Your task to perform on an android device: toggle notifications settings in the gmail app Image 0: 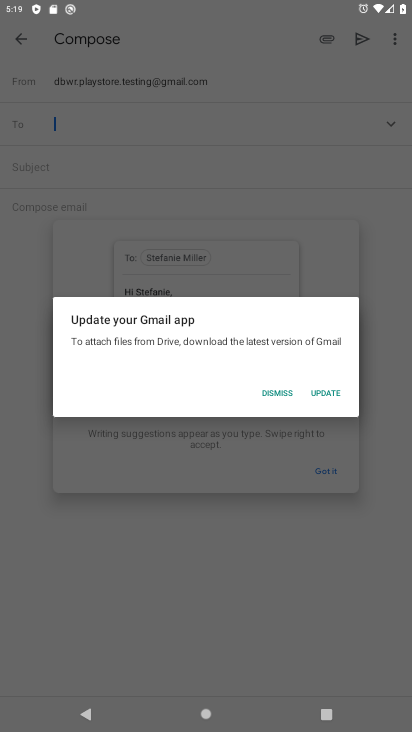
Step 0: press home button
Your task to perform on an android device: toggle notifications settings in the gmail app Image 1: 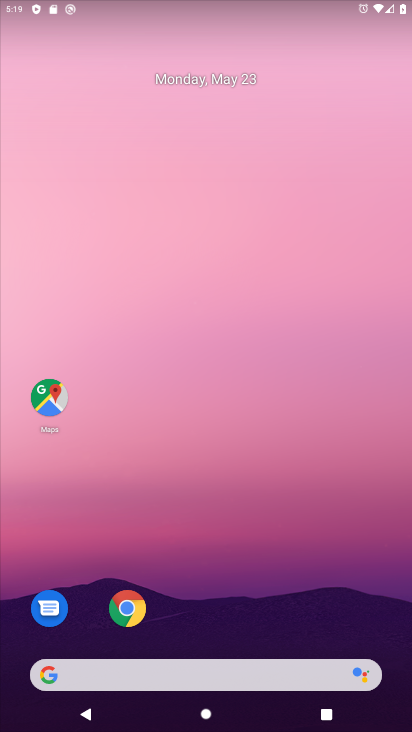
Step 1: drag from (199, 636) to (157, 197)
Your task to perform on an android device: toggle notifications settings in the gmail app Image 2: 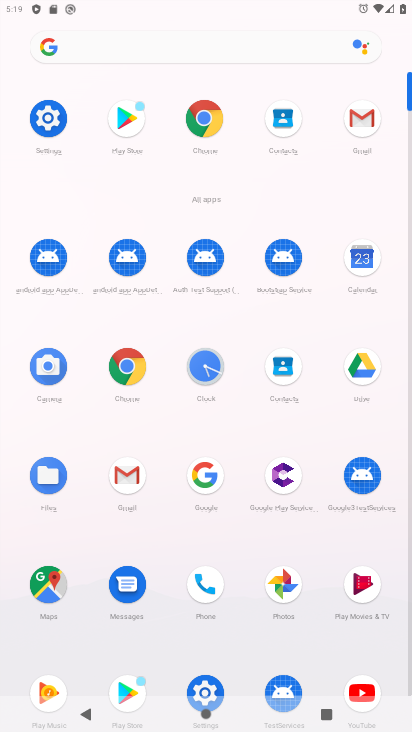
Step 2: click (120, 485)
Your task to perform on an android device: toggle notifications settings in the gmail app Image 3: 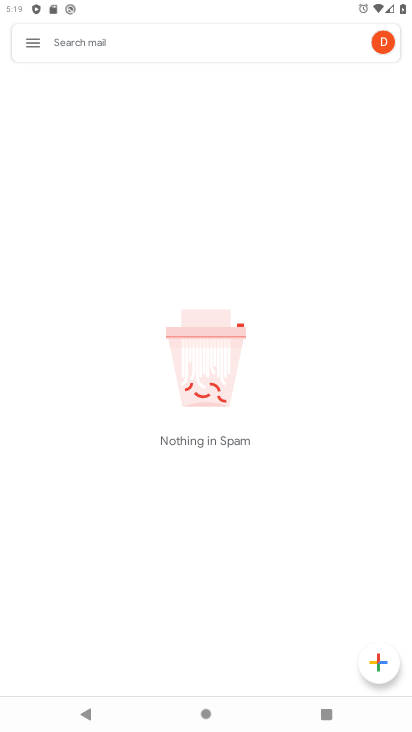
Step 3: click (29, 47)
Your task to perform on an android device: toggle notifications settings in the gmail app Image 4: 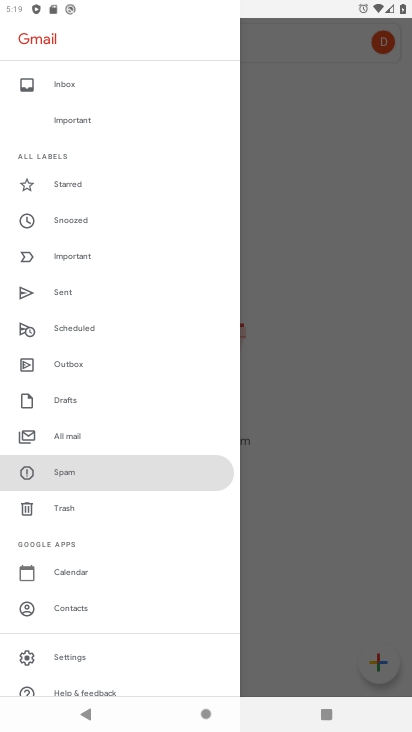
Step 4: drag from (91, 672) to (59, 269)
Your task to perform on an android device: toggle notifications settings in the gmail app Image 5: 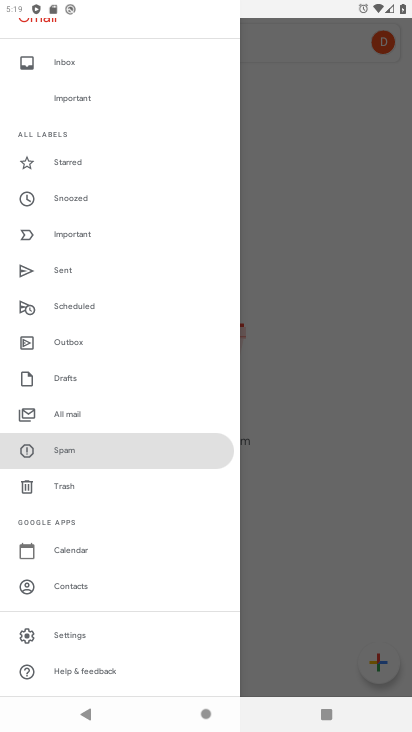
Step 5: click (81, 634)
Your task to perform on an android device: toggle notifications settings in the gmail app Image 6: 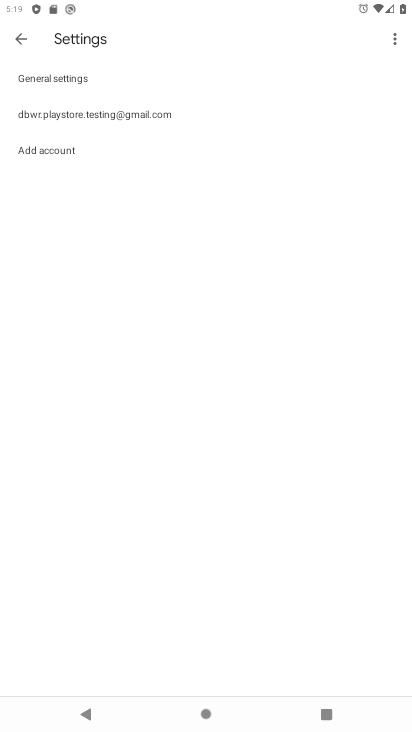
Step 6: click (61, 112)
Your task to perform on an android device: toggle notifications settings in the gmail app Image 7: 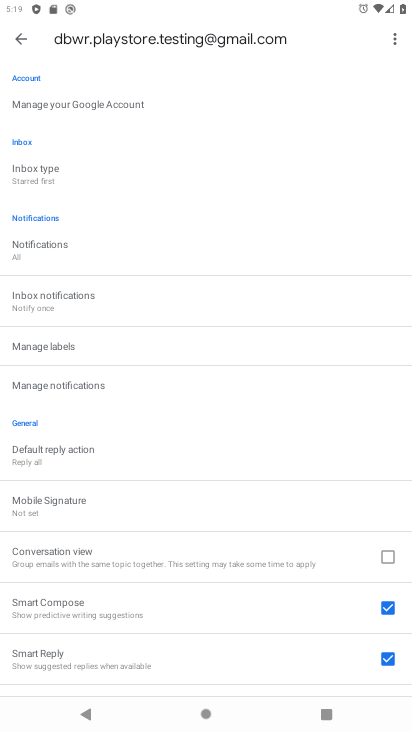
Step 7: click (56, 262)
Your task to perform on an android device: toggle notifications settings in the gmail app Image 8: 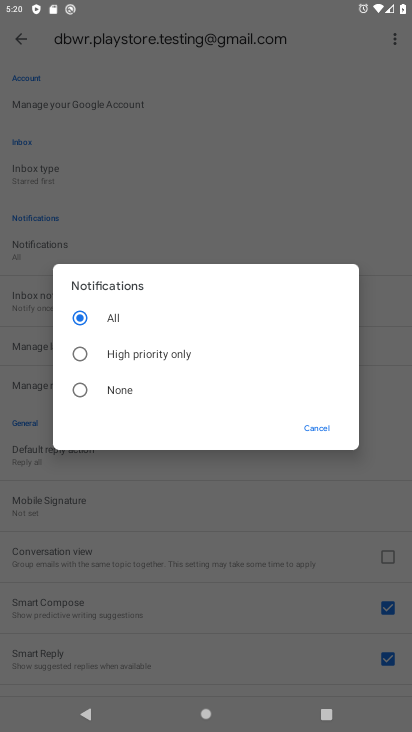
Step 8: click (84, 399)
Your task to perform on an android device: toggle notifications settings in the gmail app Image 9: 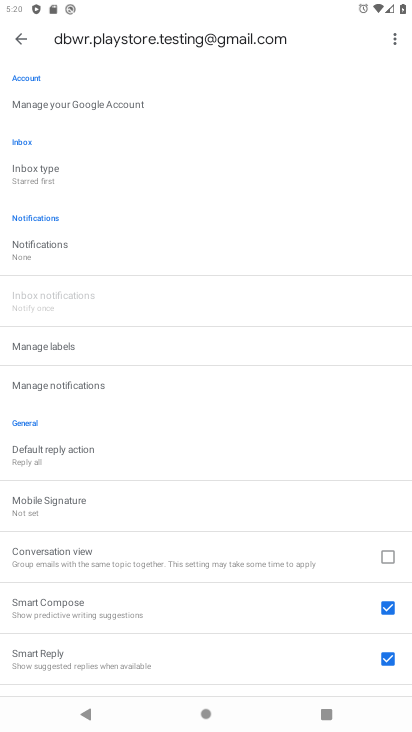
Step 9: task complete